Your task to perform on an android device: change the upload size in google photos Image 0: 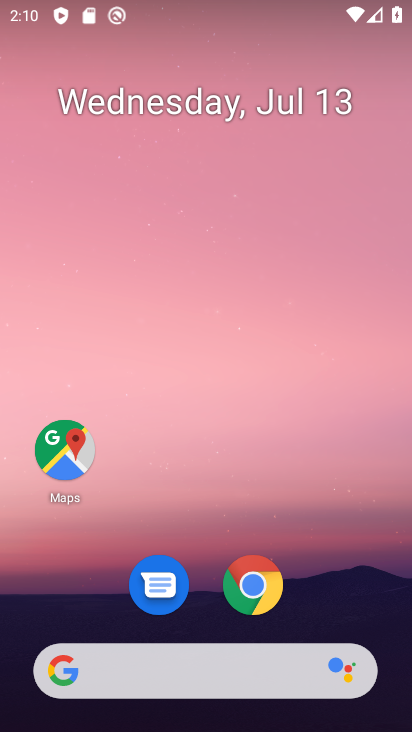
Step 0: drag from (220, 463) to (194, 123)
Your task to perform on an android device: change the upload size in google photos Image 1: 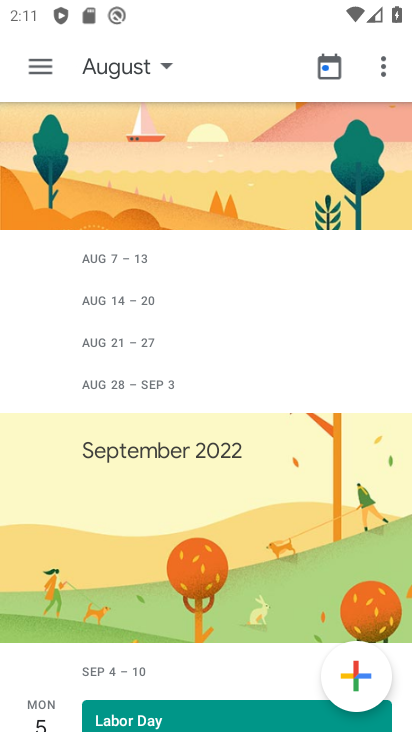
Step 1: press home button
Your task to perform on an android device: change the upload size in google photos Image 2: 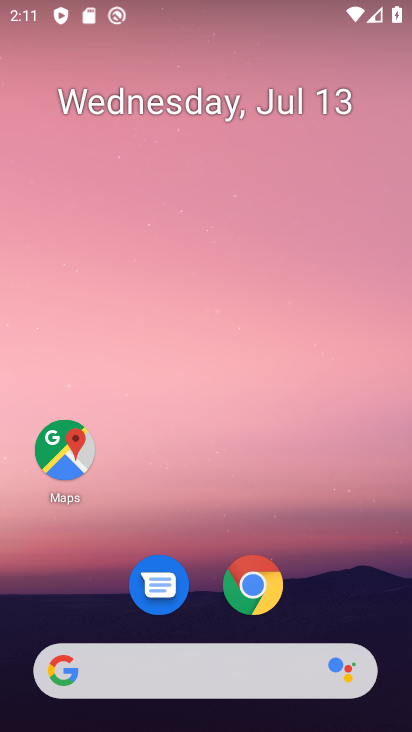
Step 2: drag from (220, 684) to (237, 254)
Your task to perform on an android device: change the upload size in google photos Image 3: 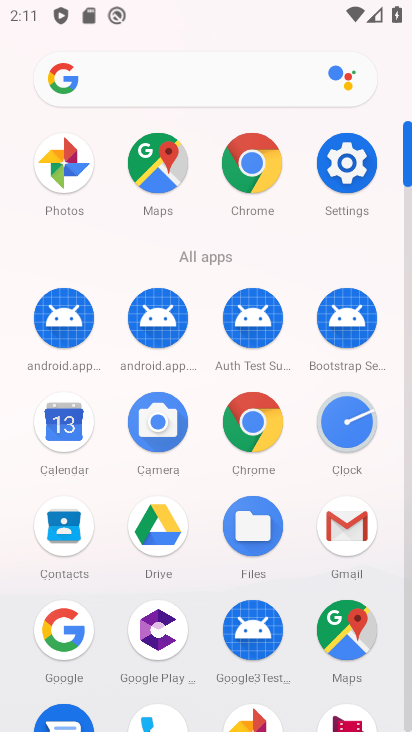
Step 3: click (55, 172)
Your task to perform on an android device: change the upload size in google photos Image 4: 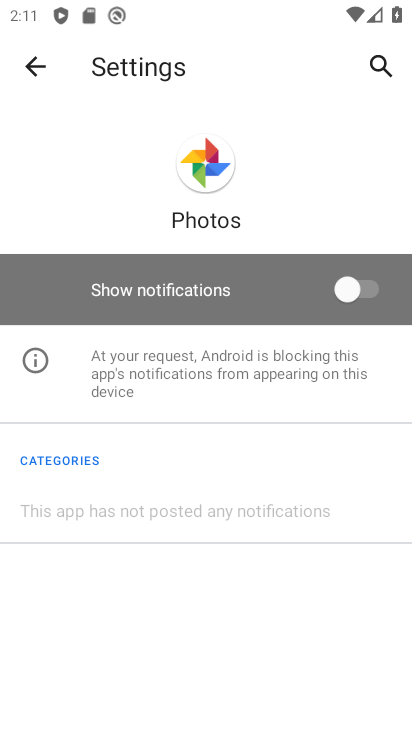
Step 4: click (31, 70)
Your task to perform on an android device: change the upload size in google photos Image 5: 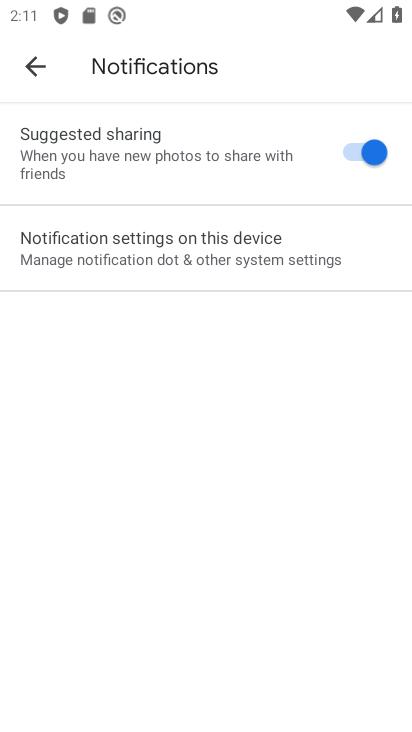
Step 5: click (34, 74)
Your task to perform on an android device: change the upload size in google photos Image 6: 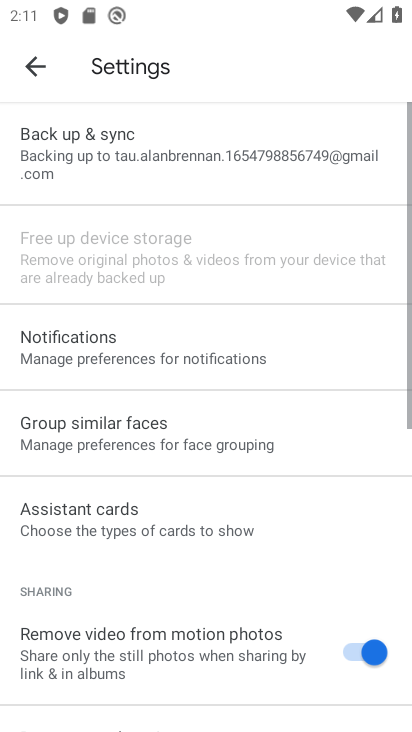
Step 6: click (187, 170)
Your task to perform on an android device: change the upload size in google photos Image 7: 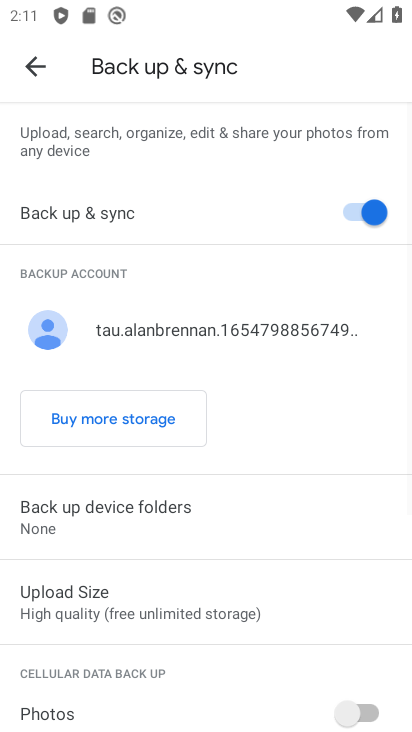
Step 7: click (153, 593)
Your task to perform on an android device: change the upload size in google photos Image 8: 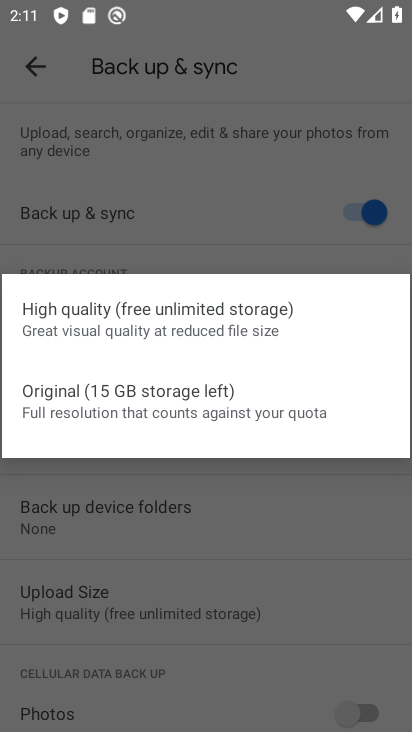
Step 8: click (268, 468)
Your task to perform on an android device: change the upload size in google photos Image 9: 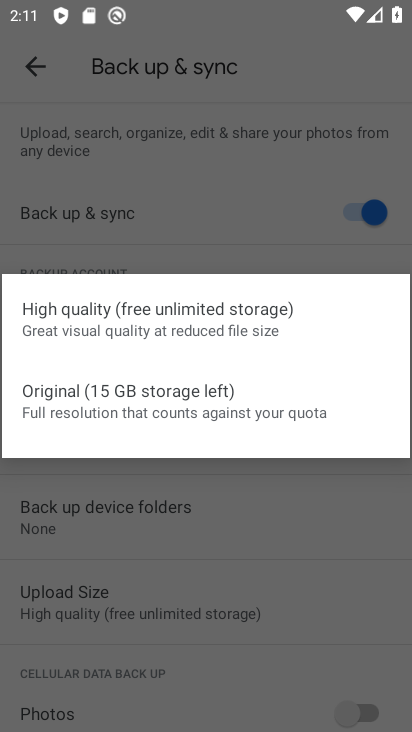
Step 9: click (75, 324)
Your task to perform on an android device: change the upload size in google photos Image 10: 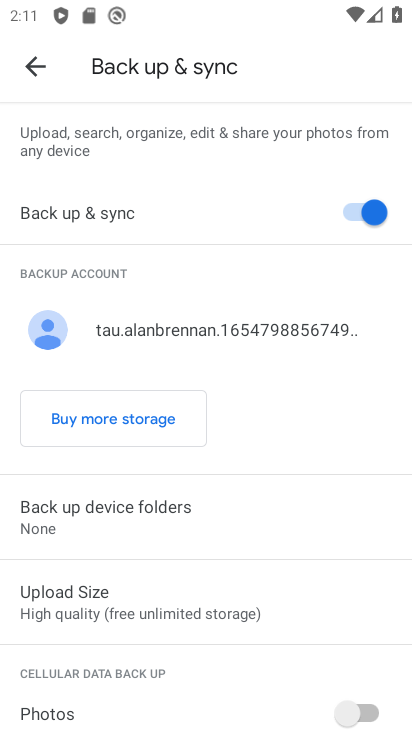
Step 10: task complete